Your task to perform on an android device: toggle airplane mode Image 0: 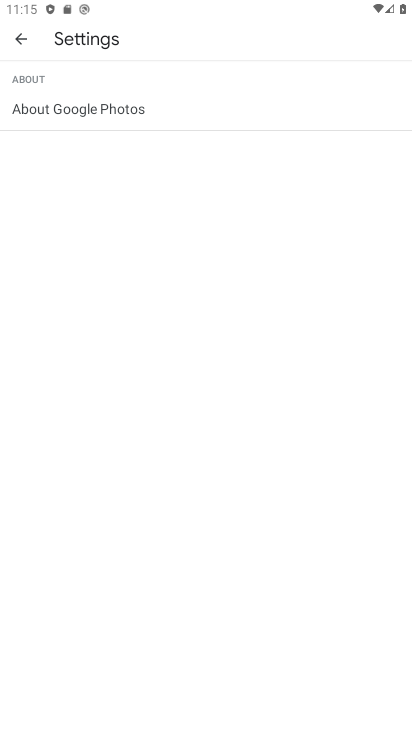
Step 0: press home button
Your task to perform on an android device: toggle airplane mode Image 1: 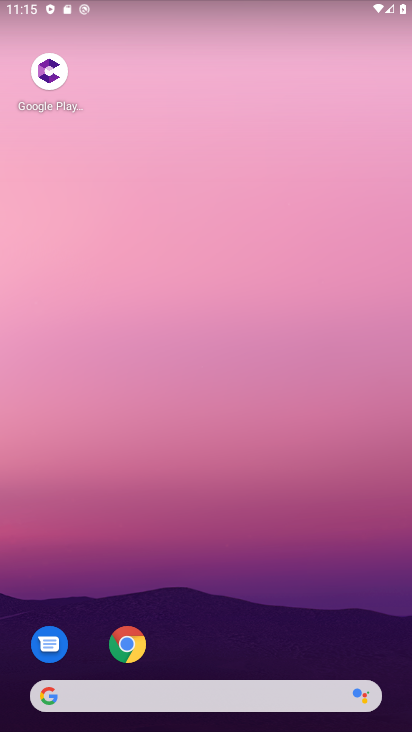
Step 1: drag from (214, 671) to (161, 113)
Your task to perform on an android device: toggle airplane mode Image 2: 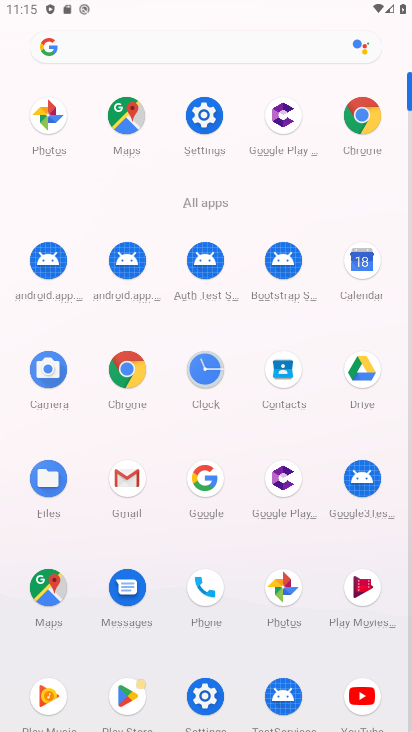
Step 2: click (202, 696)
Your task to perform on an android device: toggle airplane mode Image 3: 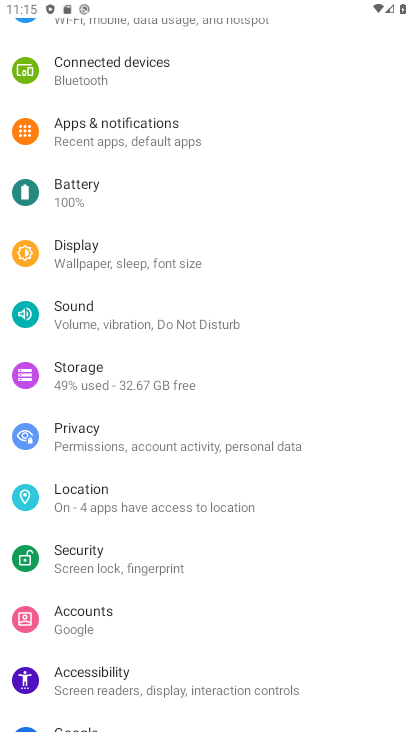
Step 3: drag from (165, 97) to (154, 561)
Your task to perform on an android device: toggle airplane mode Image 4: 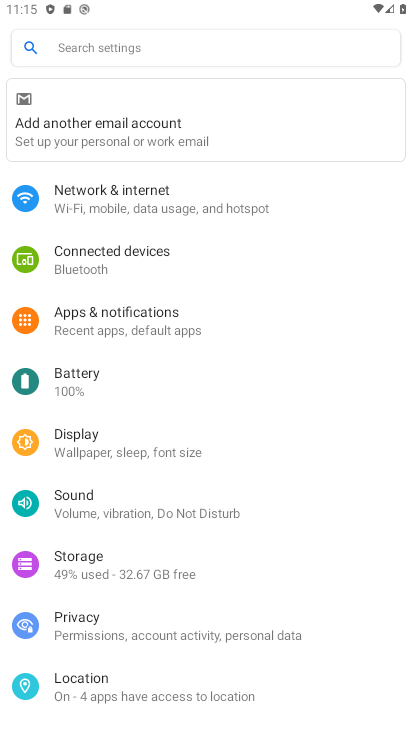
Step 4: click (158, 198)
Your task to perform on an android device: toggle airplane mode Image 5: 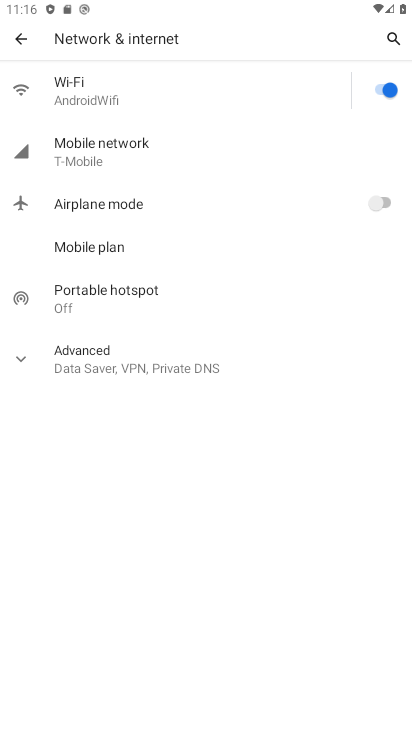
Step 5: click (385, 206)
Your task to perform on an android device: toggle airplane mode Image 6: 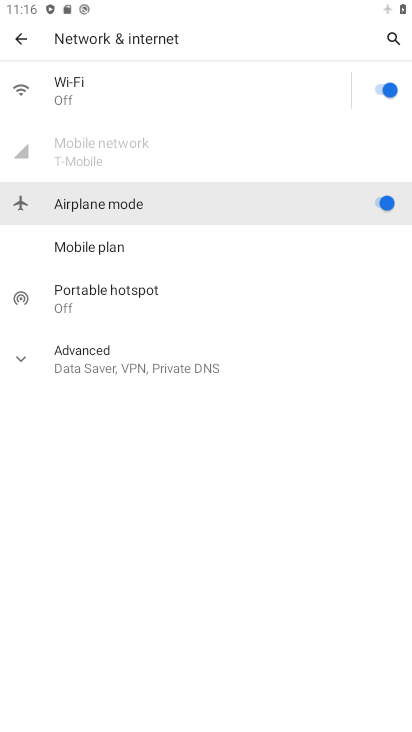
Step 6: task complete